Your task to perform on an android device: Go to Reddit.com Image 0: 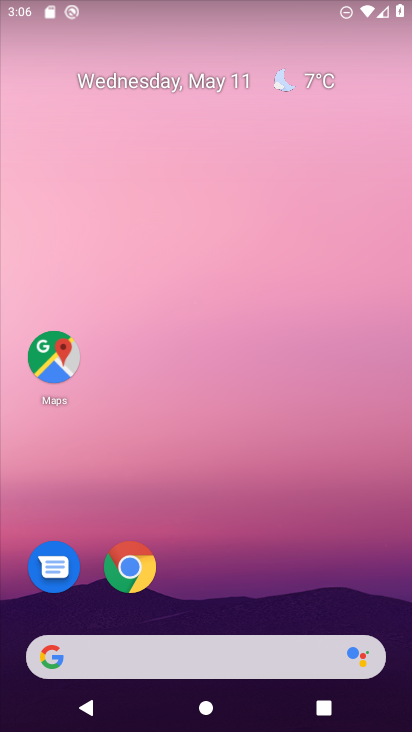
Step 0: click (142, 569)
Your task to perform on an android device: Go to Reddit.com Image 1: 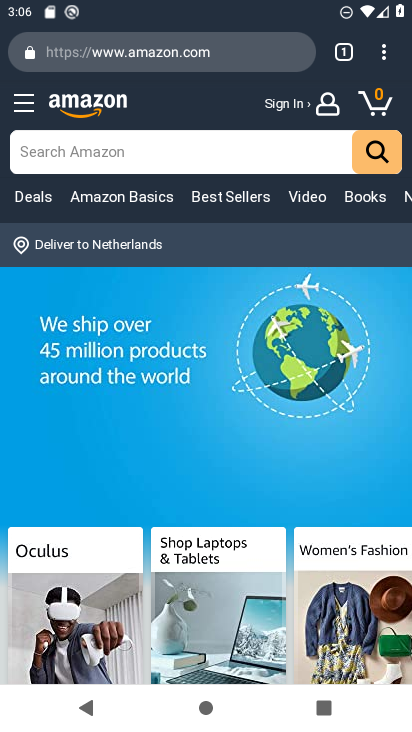
Step 1: click (187, 44)
Your task to perform on an android device: Go to Reddit.com Image 2: 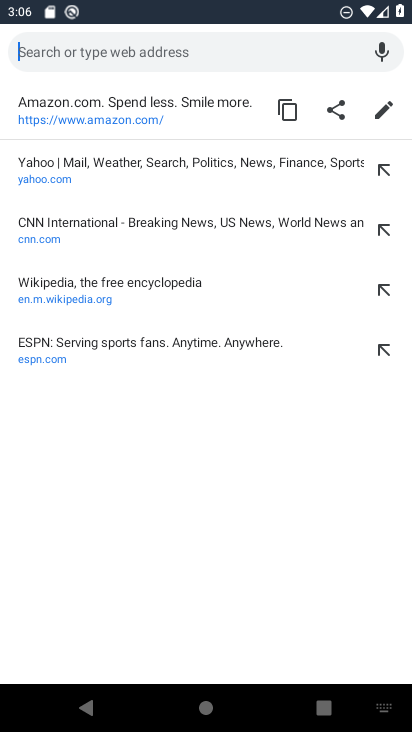
Step 2: type "reddit.com"
Your task to perform on an android device: Go to Reddit.com Image 3: 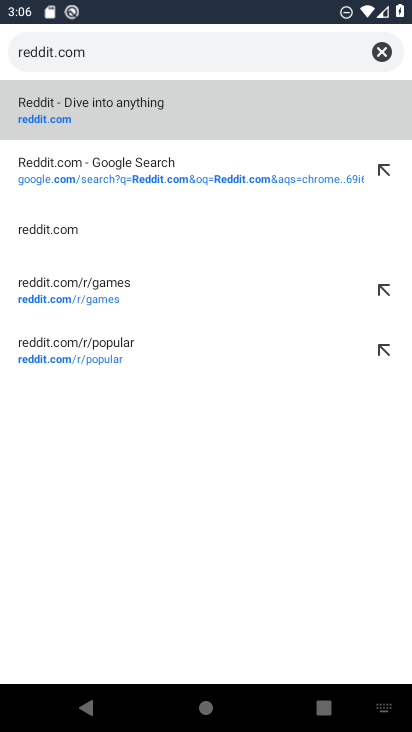
Step 3: click (172, 93)
Your task to perform on an android device: Go to Reddit.com Image 4: 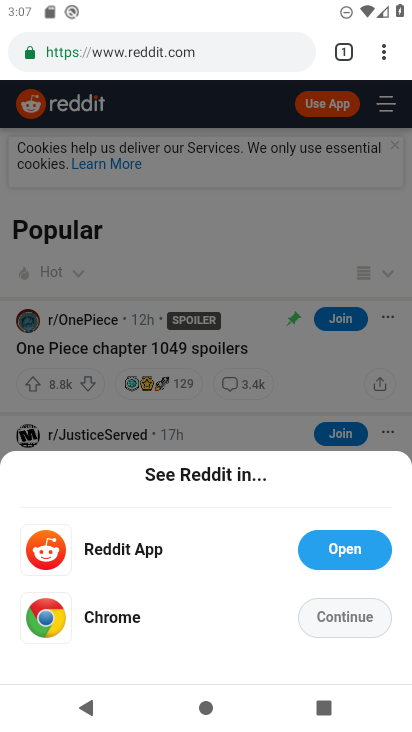
Step 4: click (323, 619)
Your task to perform on an android device: Go to Reddit.com Image 5: 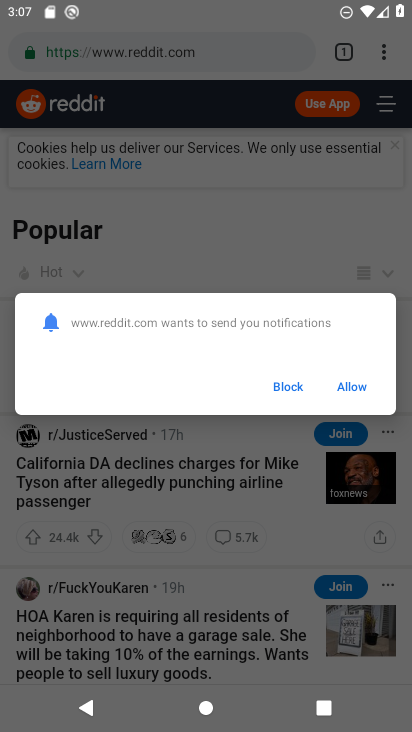
Step 5: task complete